Your task to perform on an android device: Is it going to rain today? Image 0: 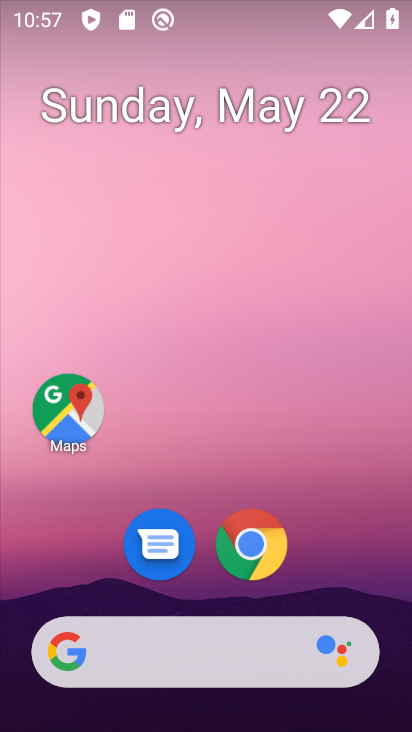
Step 0: drag from (362, 546) to (318, 26)
Your task to perform on an android device: Is it going to rain today? Image 1: 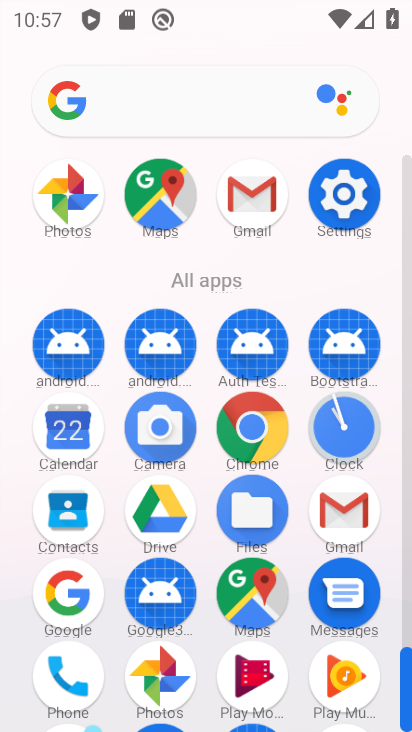
Step 1: click (76, 94)
Your task to perform on an android device: Is it going to rain today? Image 2: 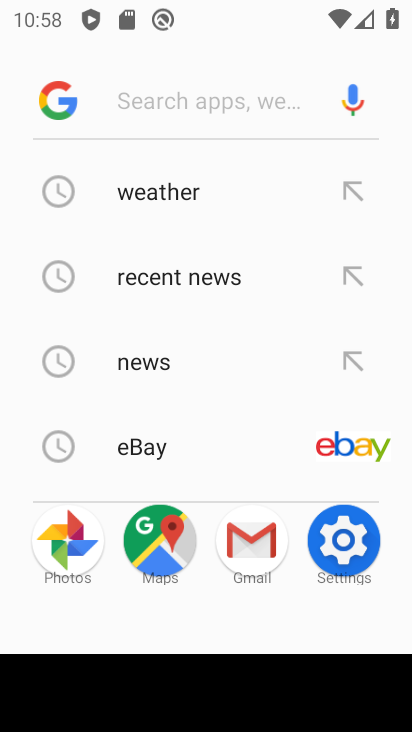
Step 2: click (84, 98)
Your task to perform on an android device: Is it going to rain today? Image 3: 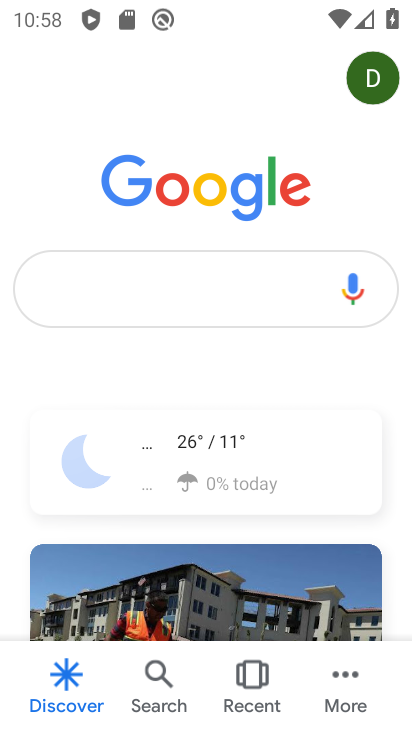
Step 3: click (214, 464)
Your task to perform on an android device: Is it going to rain today? Image 4: 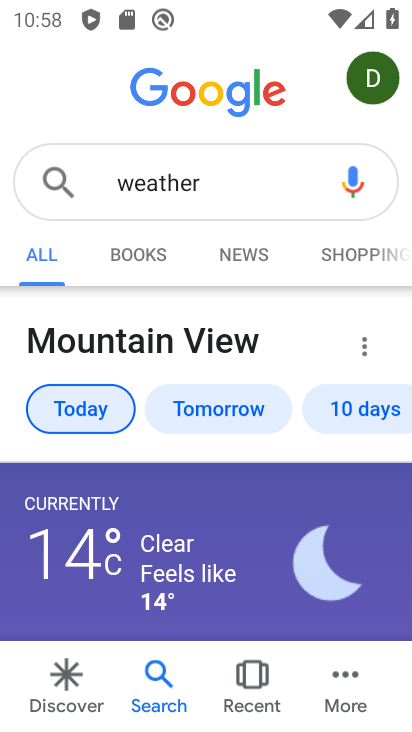
Step 4: task complete